Your task to perform on an android device: turn on bluetooth scan Image 0: 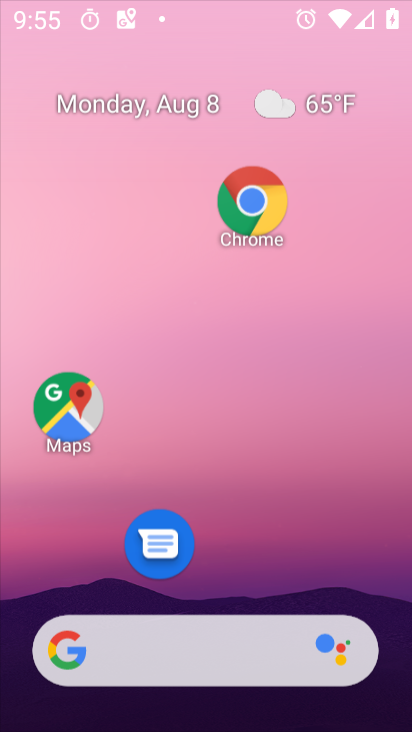
Step 0: press home button
Your task to perform on an android device: turn on bluetooth scan Image 1: 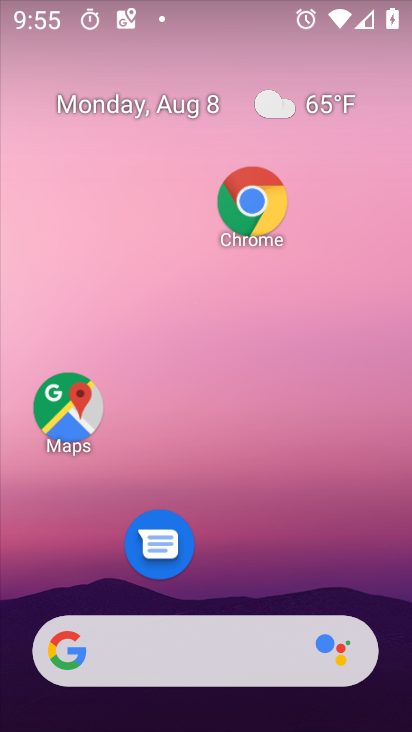
Step 1: drag from (211, 580) to (220, 31)
Your task to perform on an android device: turn on bluetooth scan Image 2: 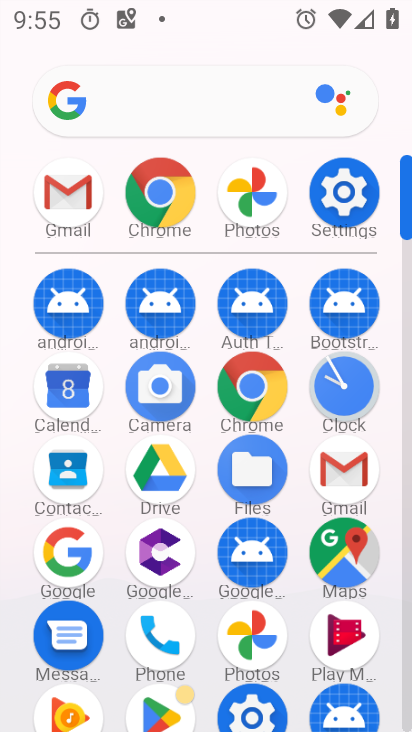
Step 2: click (341, 190)
Your task to perform on an android device: turn on bluetooth scan Image 3: 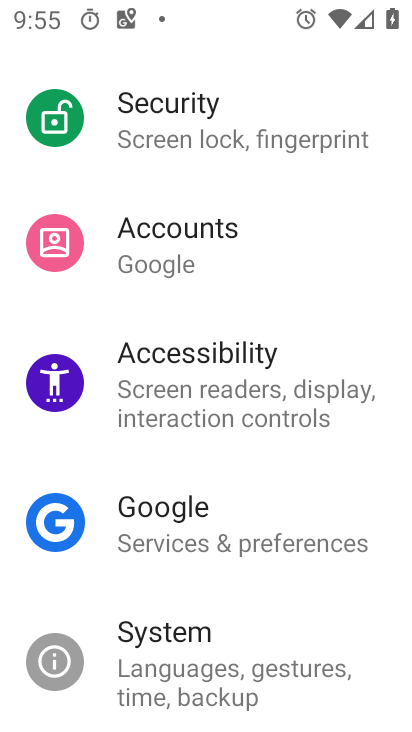
Step 3: drag from (235, 188) to (254, 588)
Your task to perform on an android device: turn on bluetooth scan Image 4: 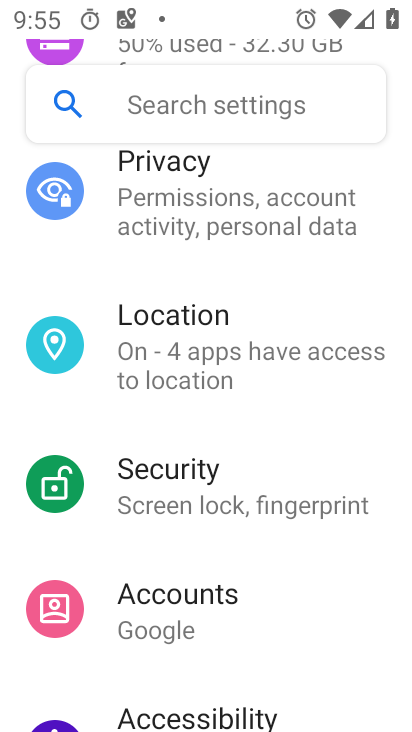
Step 4: click (254, 308)
Your task to perform on an android device: turn on bluetooth scan Image 5: 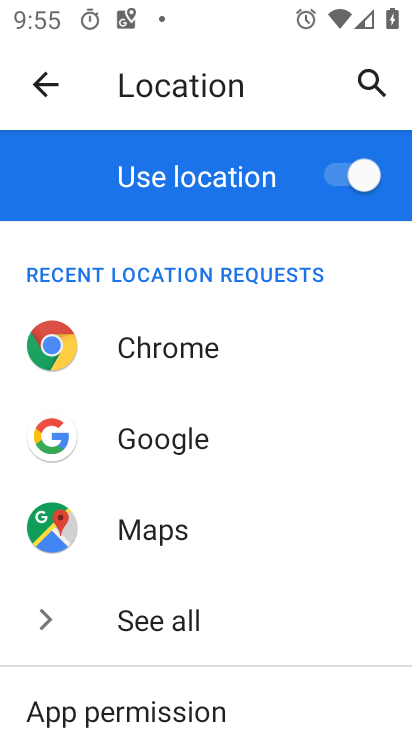
Step 5: drag from (236, 645) to (243, 248)
Your task to perform on an android device: turn on bluetooth scan Image 6: 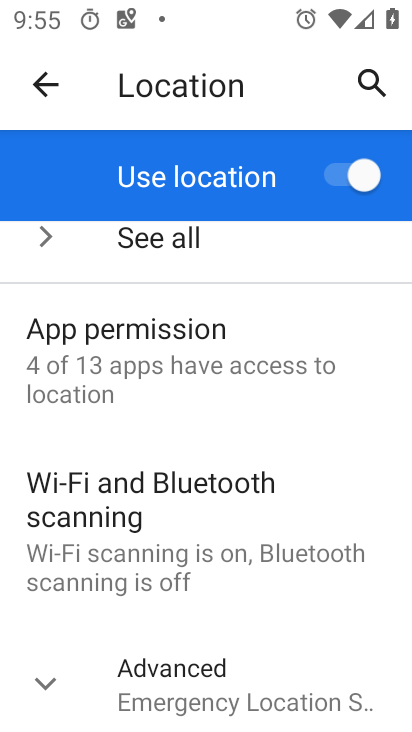
Step 6: click (190, 524)
Your task to perform on an android device: turn on bluetooth scan Image 7: 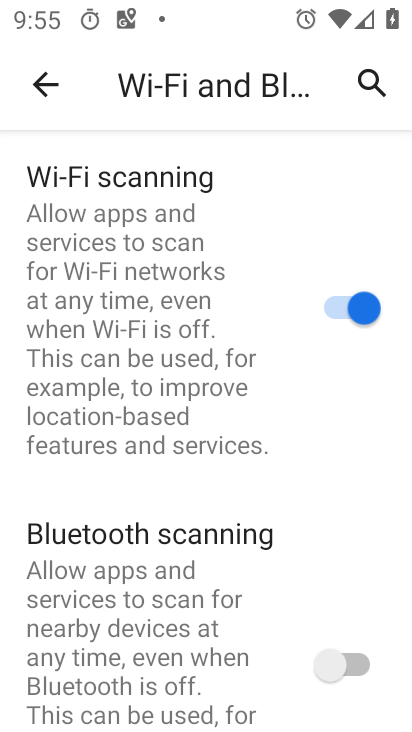
Step 7: click (339, 661)
Your task to perform on an android device: turn on bluetooth scan Image 8: 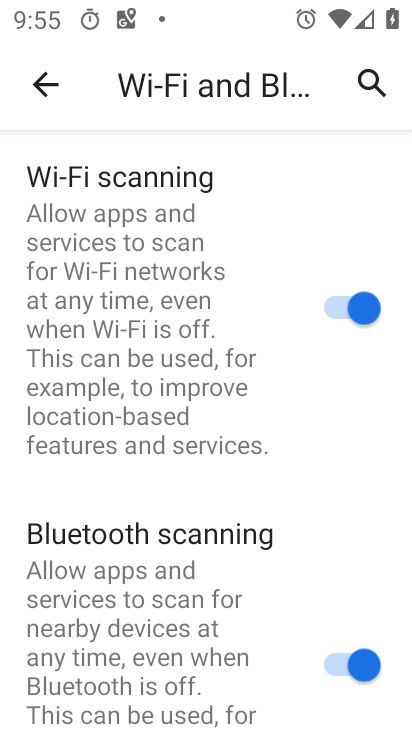
Step 8: task complete